Your task to perform on an android device: snooze an email in the gmail app Image 0: 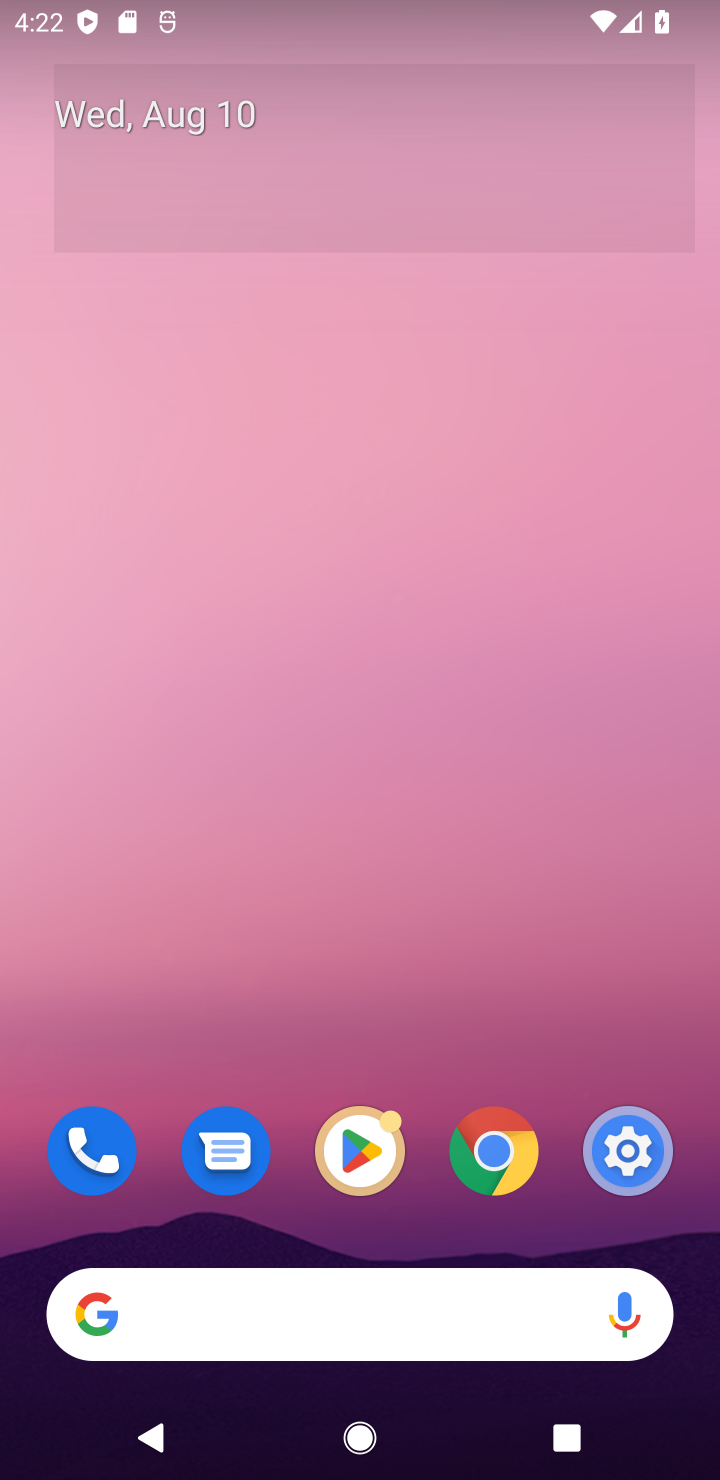
Step 0: drag from (317, 837) to (348, 176)
Your task to perform on an android device: snooze an email in the gmail app Image 1: 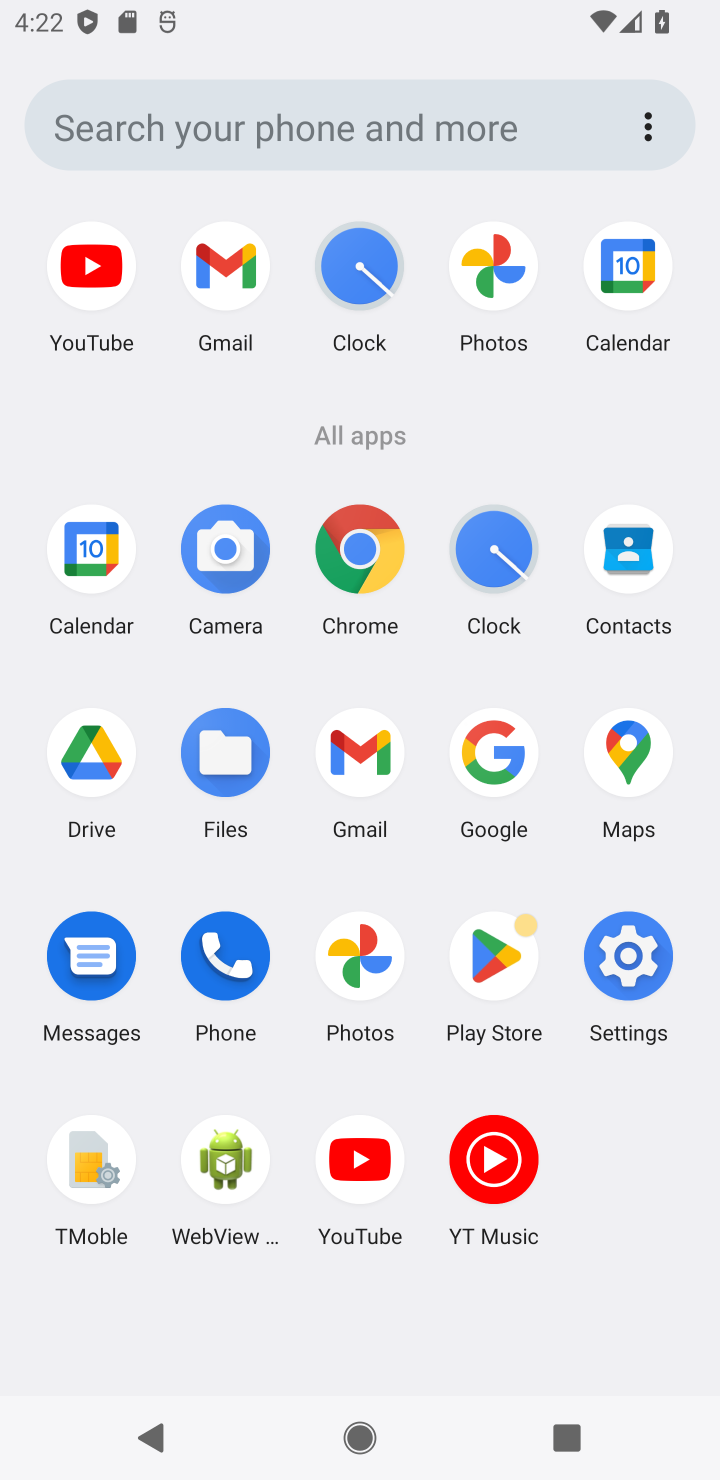
Step 1: click (360, 706)
Your task to perform on an android device: snooze an email in the gmail app Image 2: 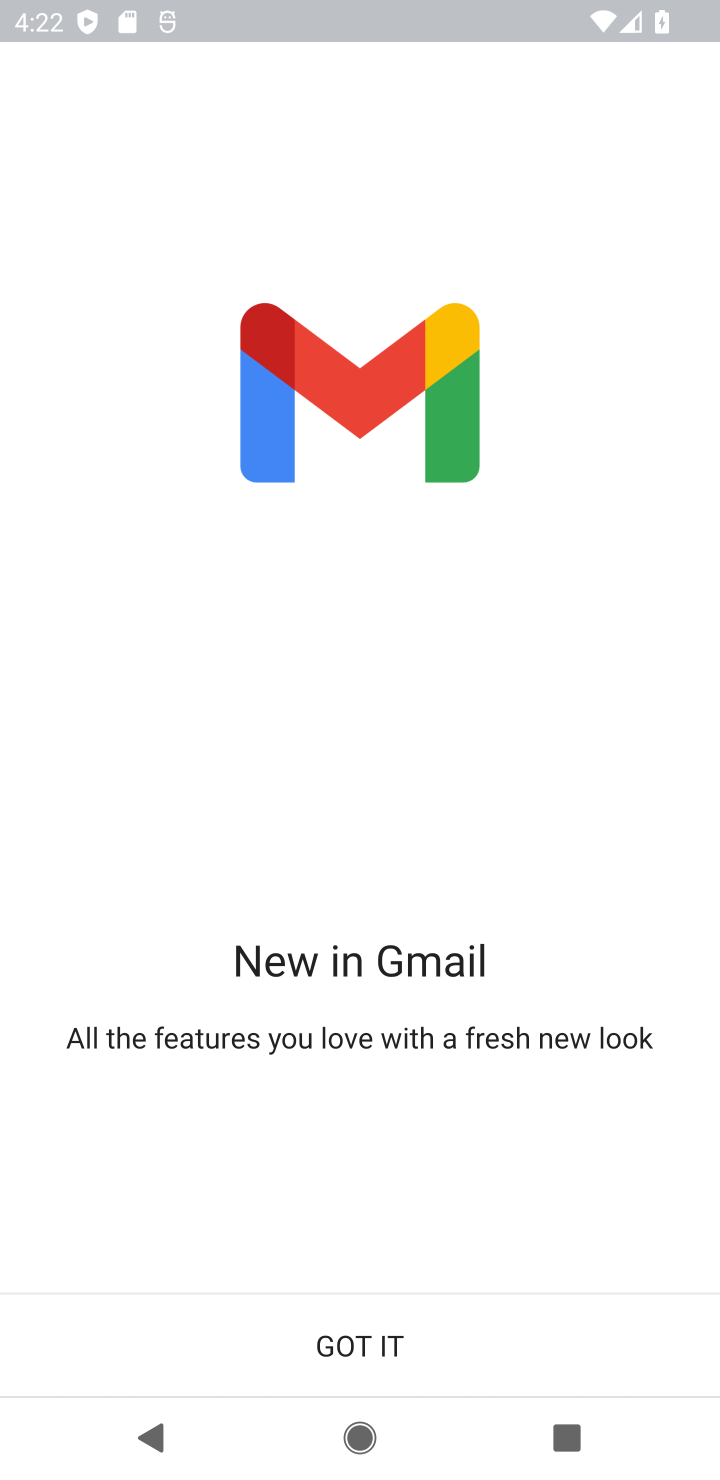
Step 2: click (362, 1340)
Your task to perform on an android device: snooze an email in the gmail app Image 3: 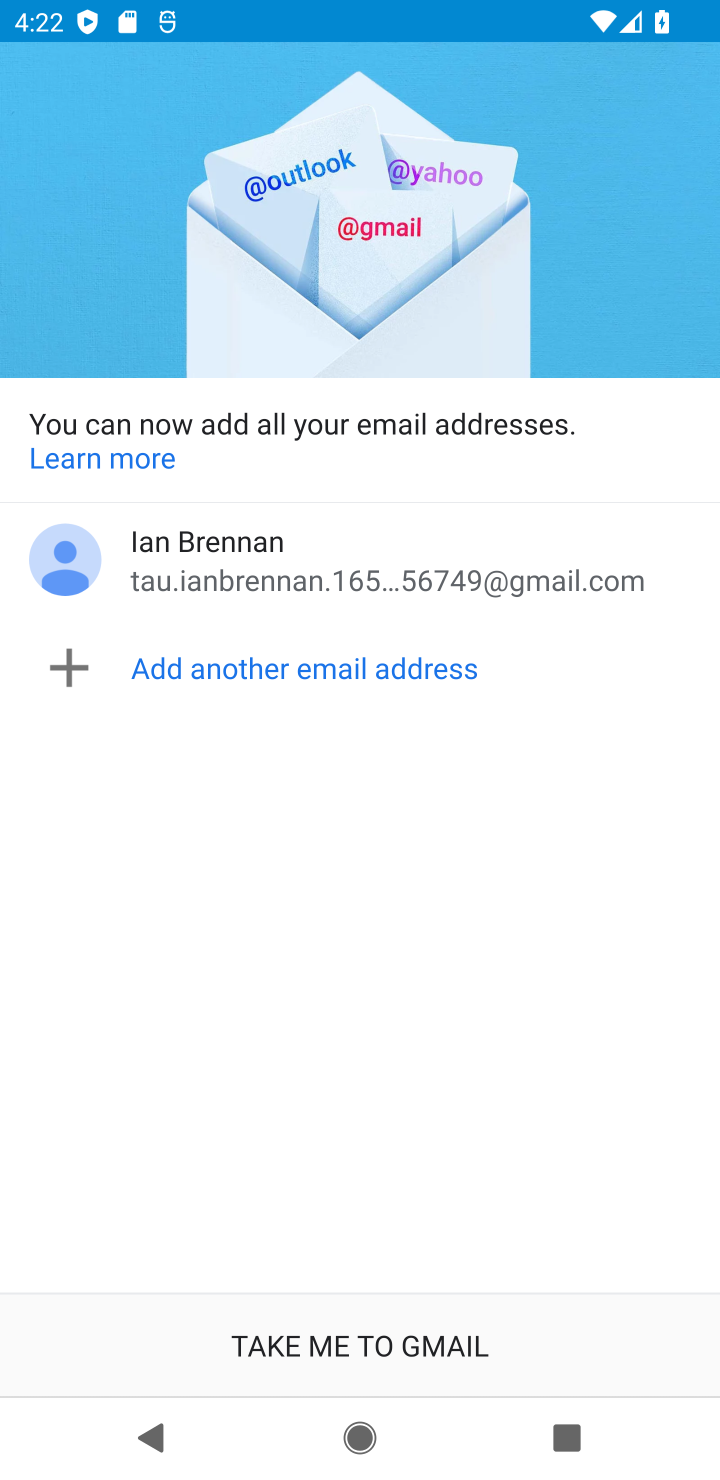
Step 3: click (380, 1332)
Your task to perform on an android device: snooze an email in the gmail app Image 4: 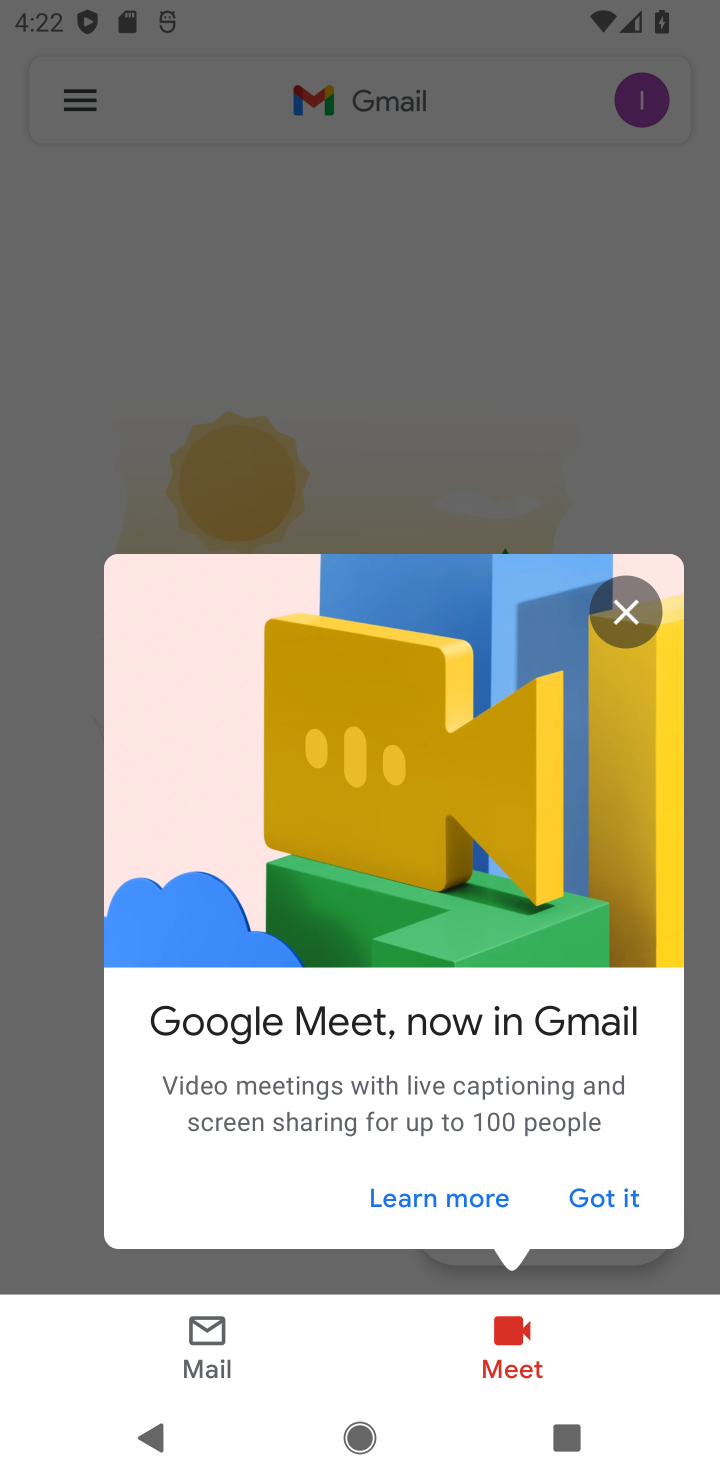
Step 4: task complete